Your task to perform on an android device: turn off picture-in-picture Image 0: 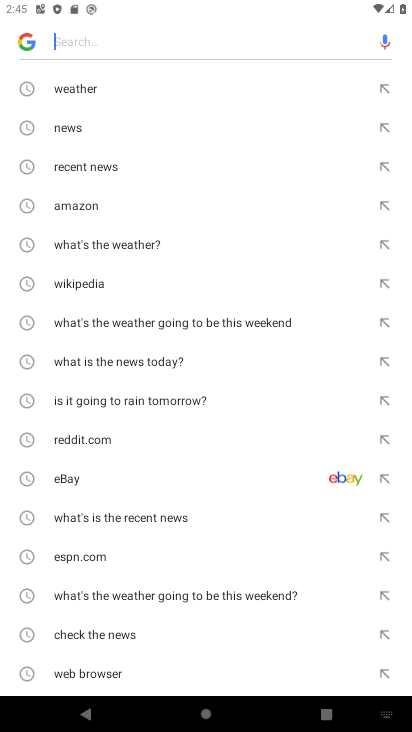
Step 0: press home button
Your task to perform on an android device: turn off picture-in-picture Image 1: 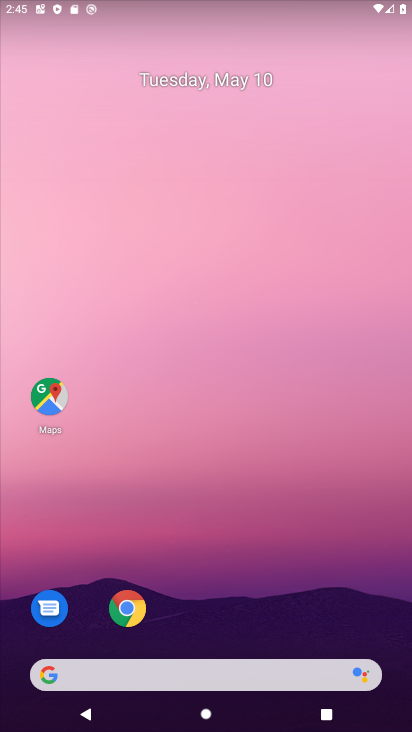
Step 1: click (135, 607)
Your task to perform on an android device: turn off picture-in-picture Image 2: 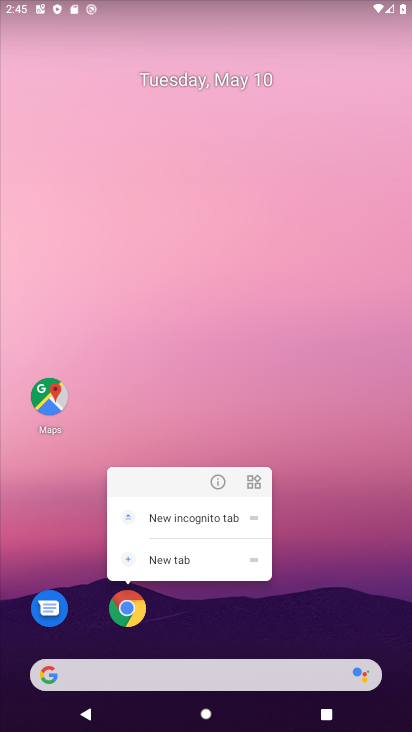
Step 2: click (212, 477)
Your task to perform on an android device: turn off picture-in-picture Image 3: 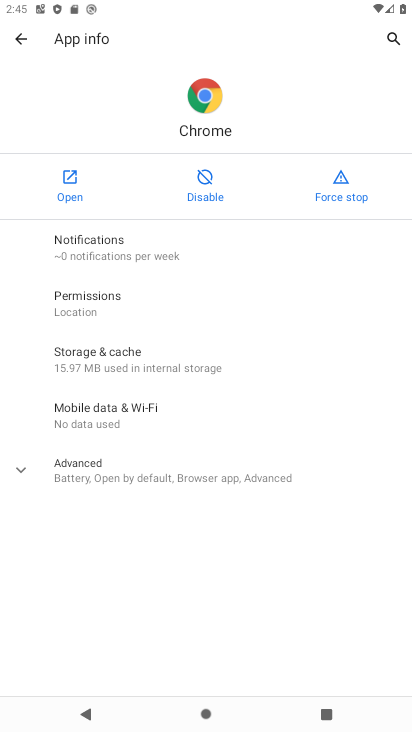
Step 3: click (77, 470)
Your task to perform on an android device: turn off picture-in-picture Image 4: 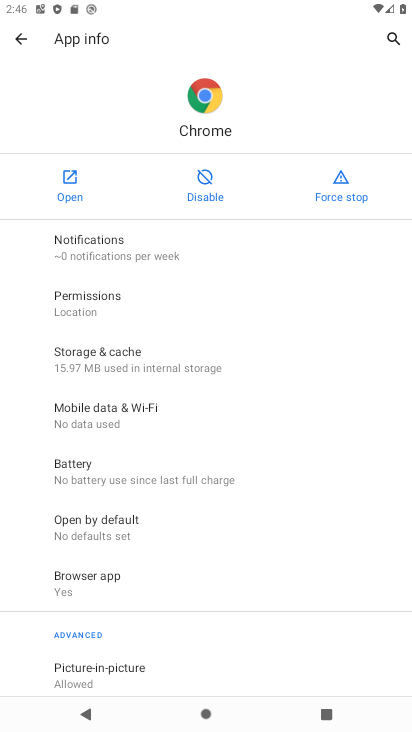
Step 4: click (130, 667)
Your task to perform on an android device: turn off picture-in-picture Image 5: 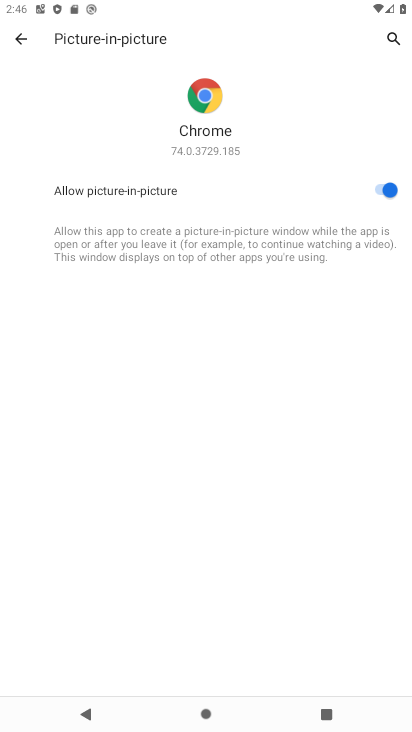
Step 5: drag from (135, 651) to (168, 451)
Your task to perform on an android device: turn off picture-in-picture Image 6: 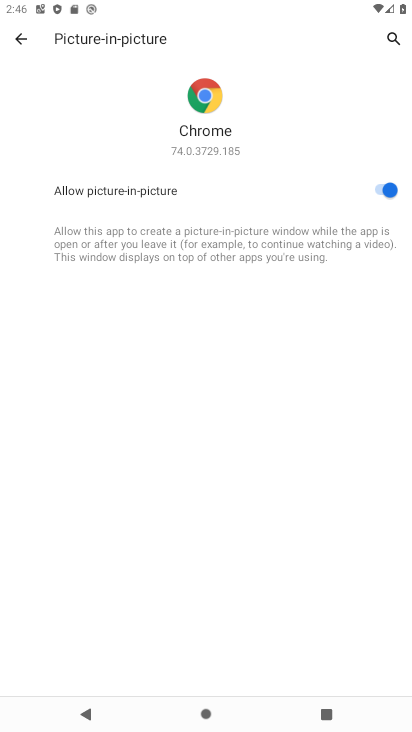
Step 6: click (376, 186)
Your task to perform on an android device: turn off picture-in-picture Image 7: 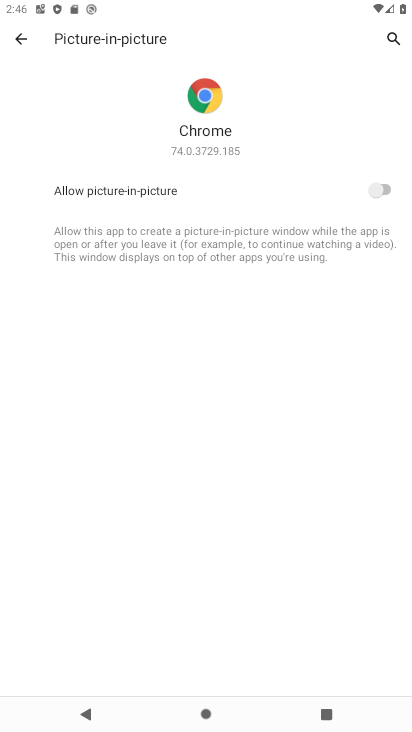
Step 7: task complete